Your task to perform on an android device: add a contact Image 0: 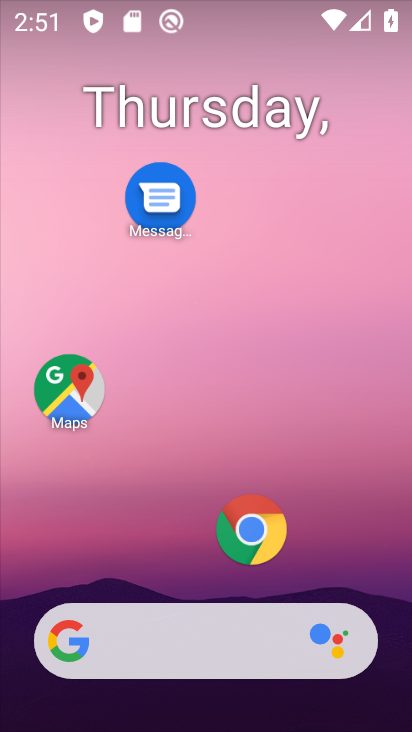
Step 0: drag from (207, 506) to (224, 229)
Your task to perform on an android device: add a contact Image 1: 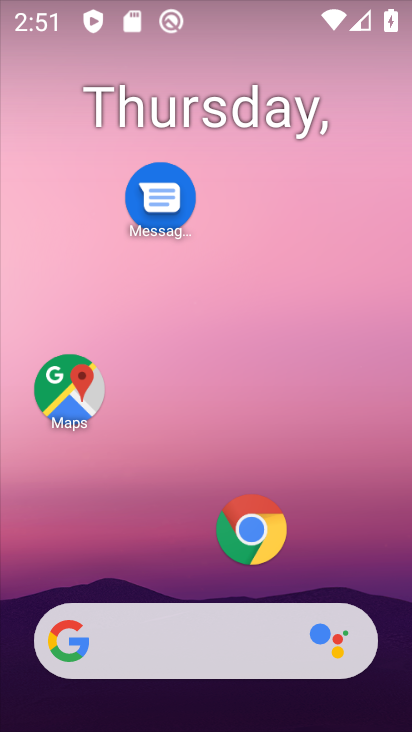
Step 1: drag from (163, 595) to (173, 190)
Your task to perform on an android device: add a contact Image 2: 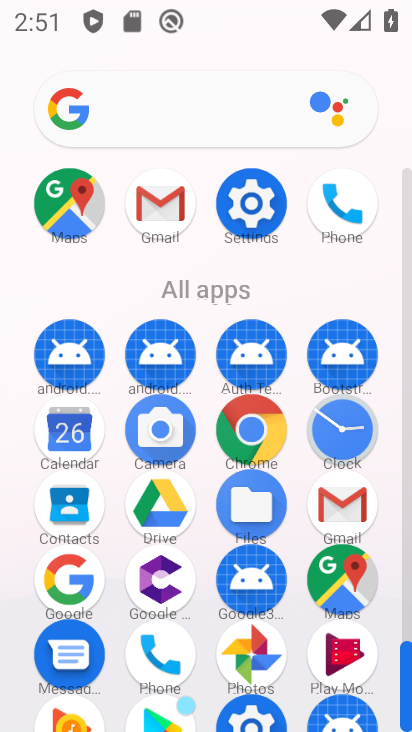
Step 2: click (74, 517)
Your task to perform on an android device: add a contact Image 3: 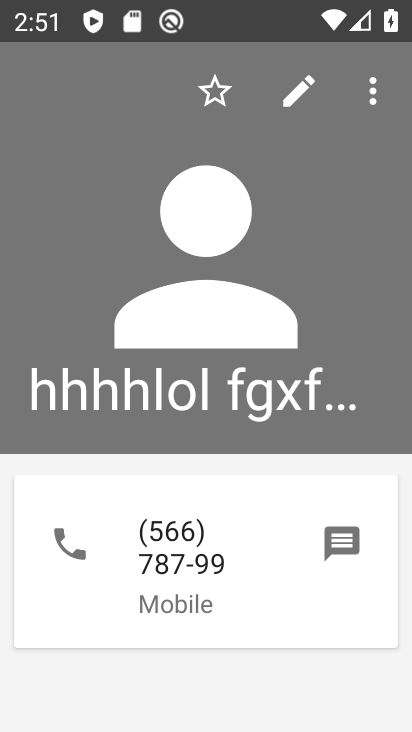
Step 3: press back button
Your task to perform on an android device: add a contact Image 4: 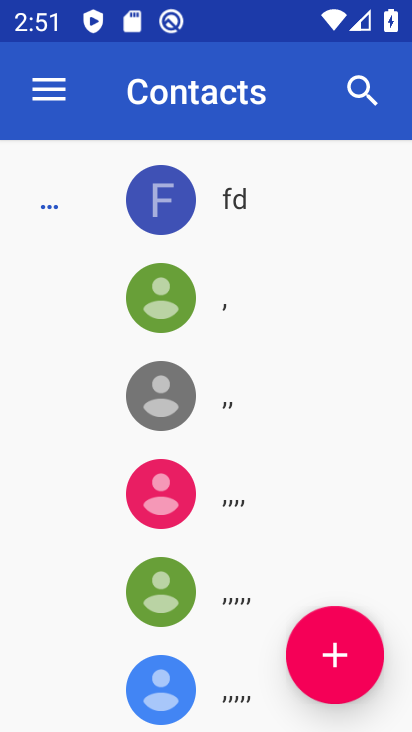
Step 4: click (340, 655)
Your task to perform on an android device: add a contact Image 5: 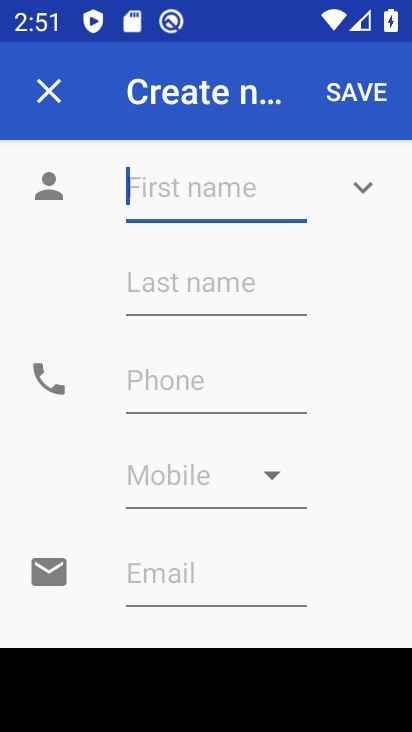
Step 5: type "dcsc"
Your task to perform on an android device: add a contact Image 6: 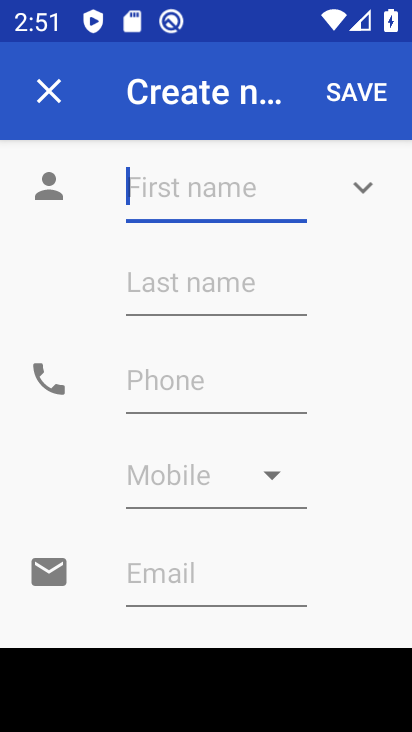
Step 6: click (175, 300)
Your task to perform on an android device: add a contact Image 7: 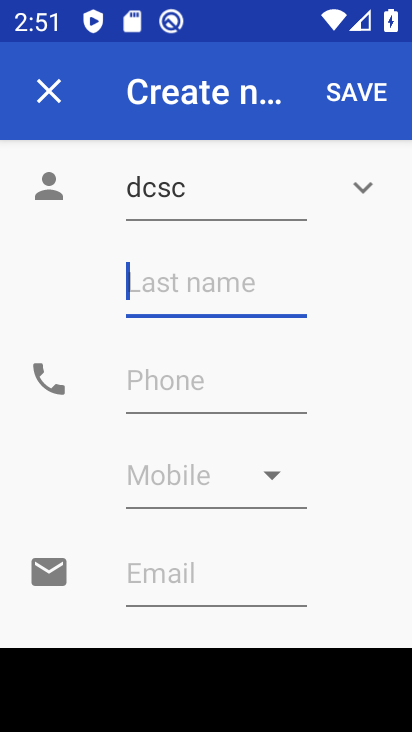
Step 7: type "csdc"
Your task to perform on an android device: add a contact Image 8: 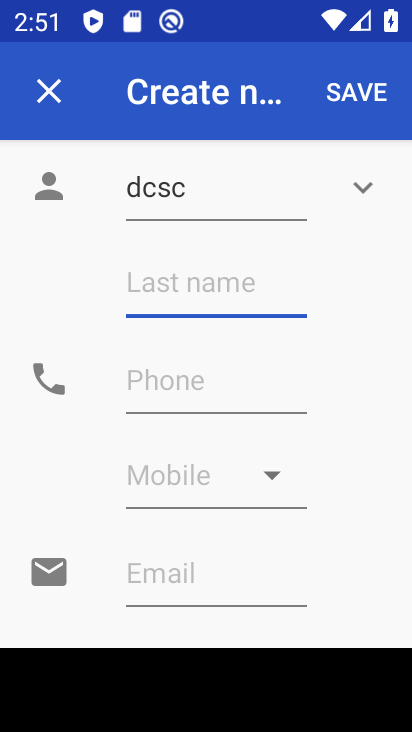
Step 8: click (213, 377)
Your task to perform on an android device: add a contact Image 9: 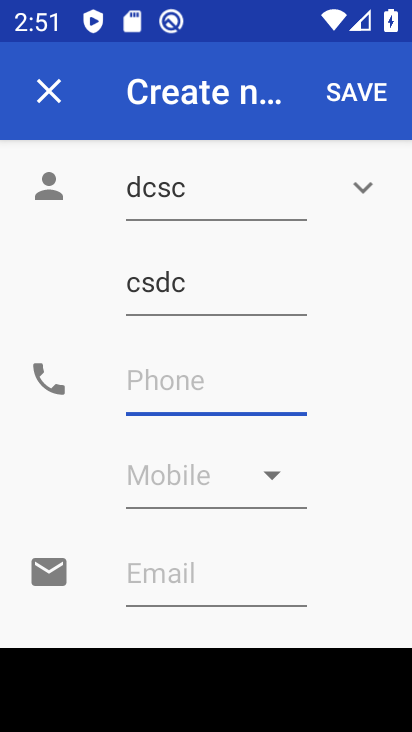
Step 9: type "3423"
Your task to perform on an android device: add a contact Image 10: 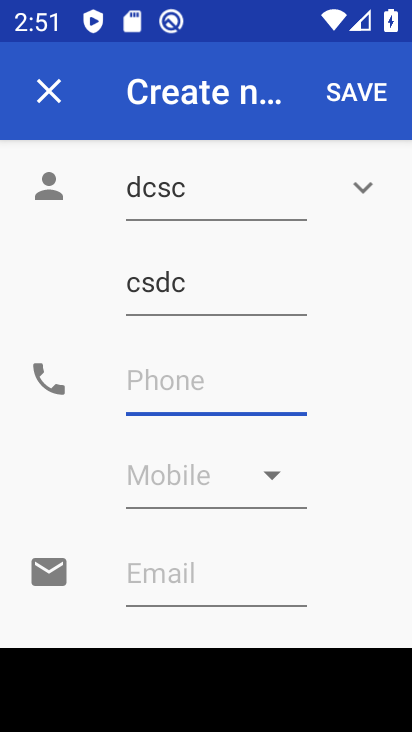
Step 10: click (205, 475)
Your task to perform on an android device: add a contact Image 11: 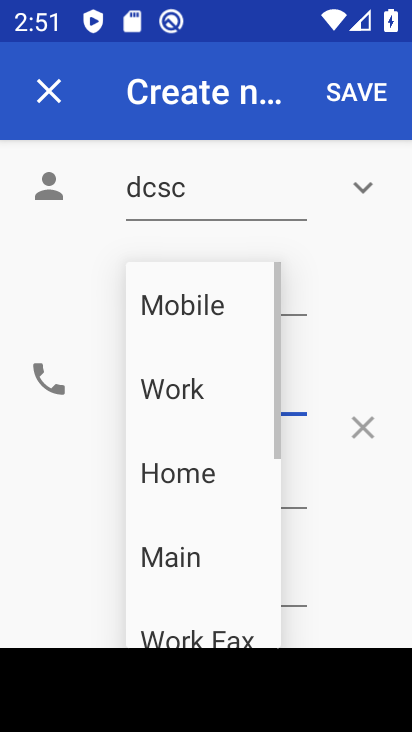
Step 11: click (186, 321)
Your task to perform on an android device: add a contact Image 12: 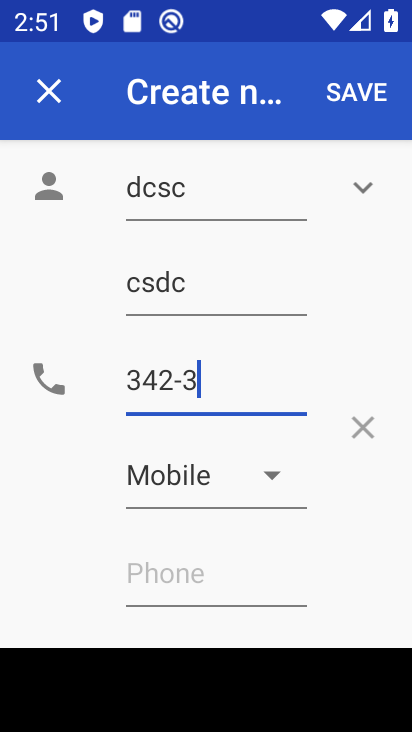
Step 12: click (355, 107)
Your task to perform on an android device: add a contact Image 13: 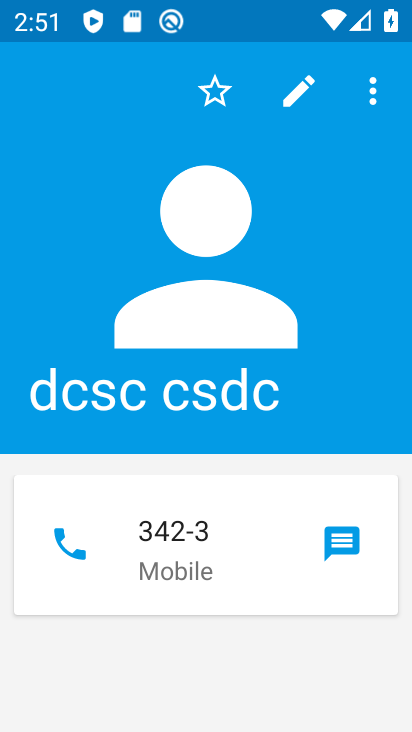
Step 13: task complete